Your task to perform on an android device: Go to Maps Image 0: 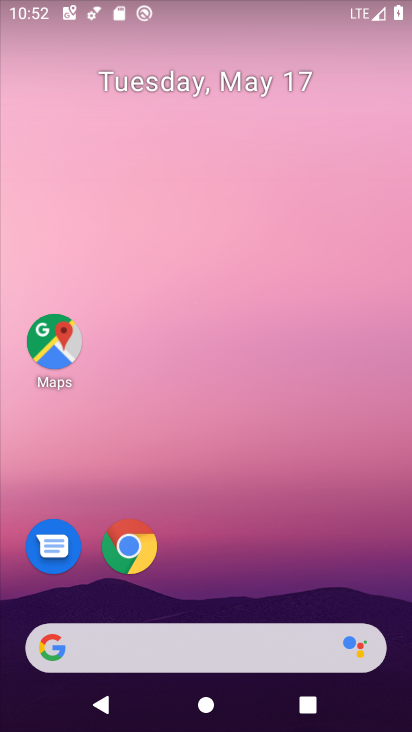
Step 0: click (60, 345)
Your task to perform on an android device: Go to Maps Image 1: 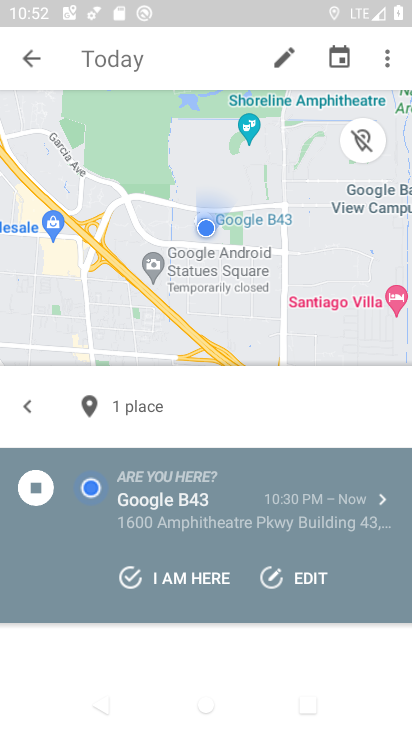
Step 1: click (32, 52)
Your task to perform on an android device: Go to Maps Image 2: 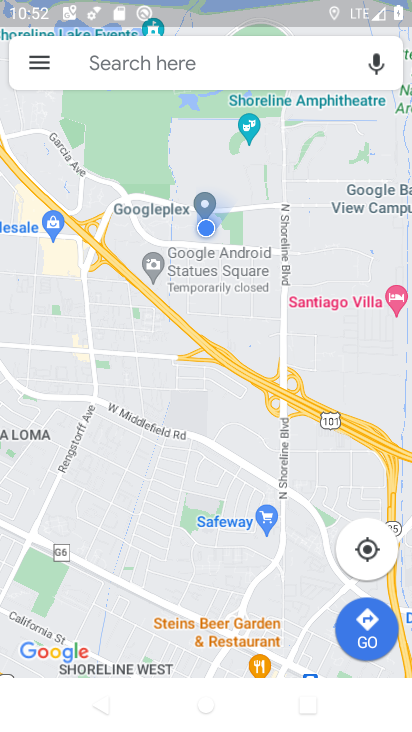
Step 2: task complete